Your task to perform on an android device: Go to privacy settings Image 0: 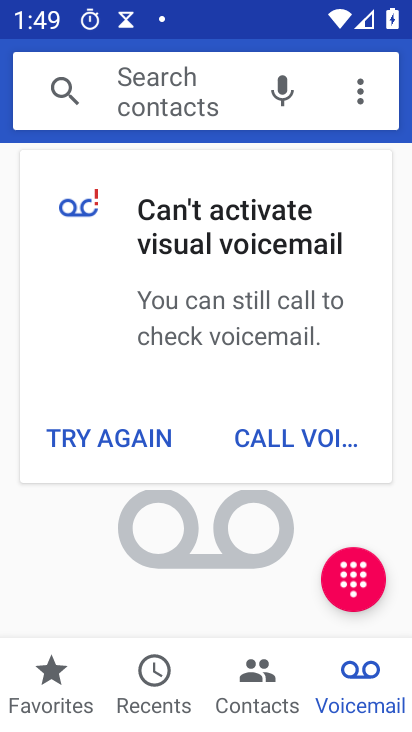
Step 0: press home button
Your task to perform on an android device: Go to privacy settings Image 1: 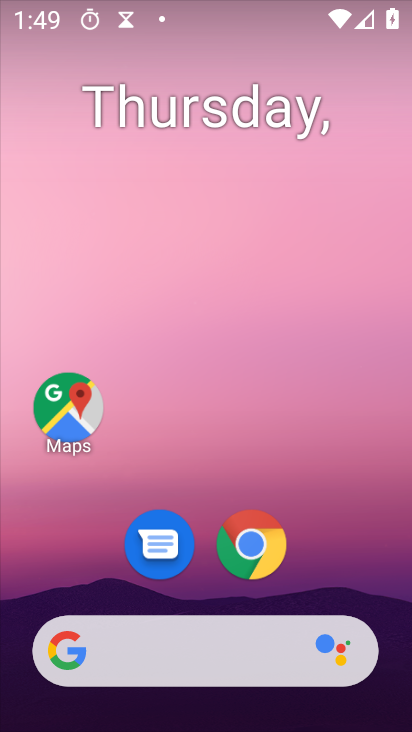
Step 1: drag from (230, 553) to (237, 150)
Your task to perform on an android device: Go to privacy settings Image 2: 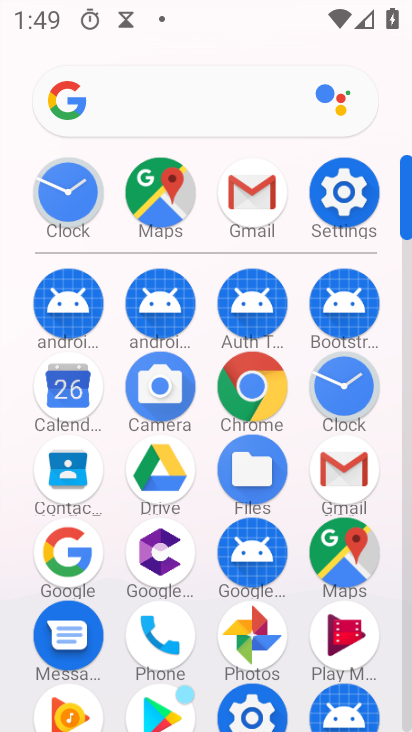
Step 2: click (351, 176)
Your task to perform on an android device: Go to privacy settings Image 3: 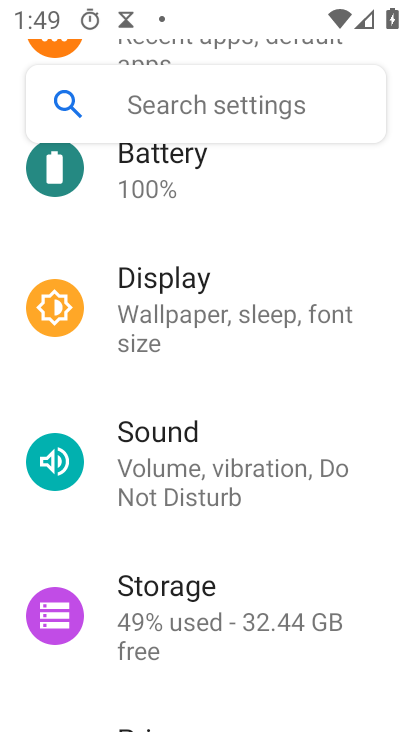
Step 3: drag from (309, 182) to (296, 581)
Your task to perform on an android device: Go to privacy settings Image 4: 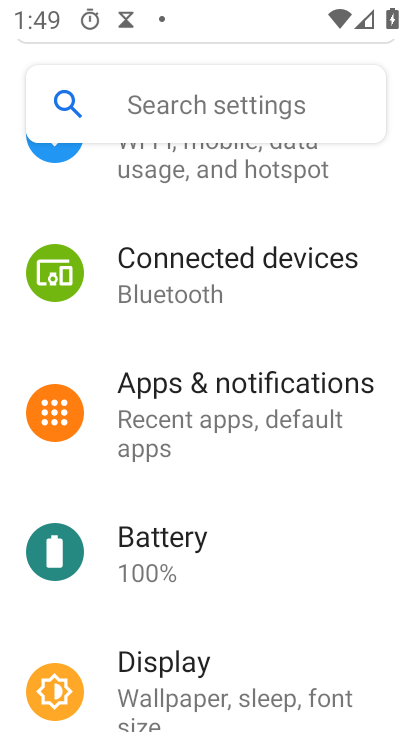
Step 4: drag from (209, 218) to (227, 617)
Your task to perform on an android device: Go to privacy settings Image 5: 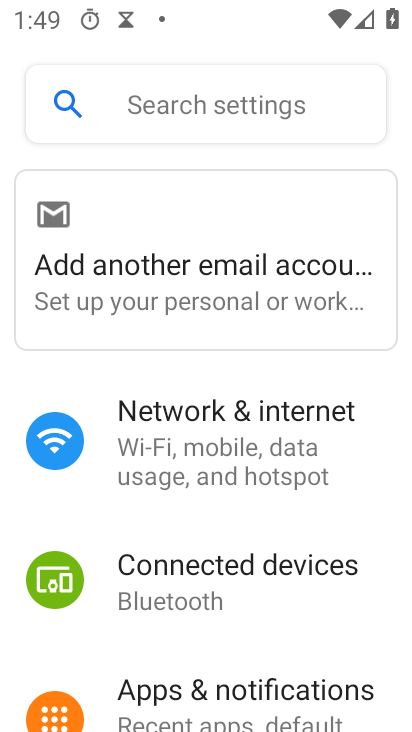
Step 5: drag from (225, 667) to (225, 292)
Your task to perform on an android device: Go to privacy settings Image 6: 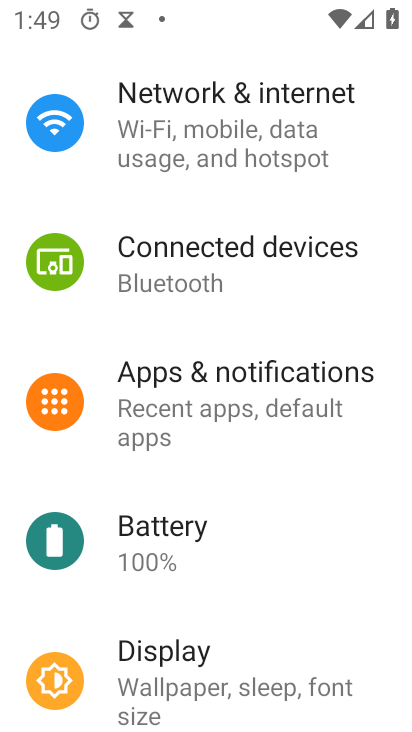
Step 6: drag from (184, 682) to (221, 374)
Your task to perform on an android device: Go to privacy settings Image 7: 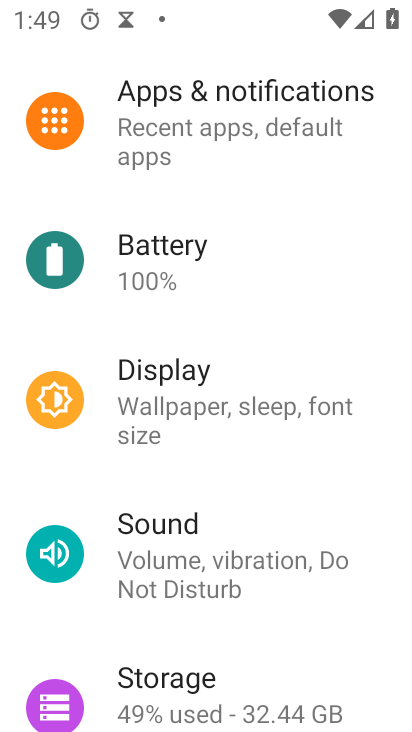
Step 7: drag from (178, 649) to (200, 172)
Your task to perform on an android device: Go to privacy settings Image 8: 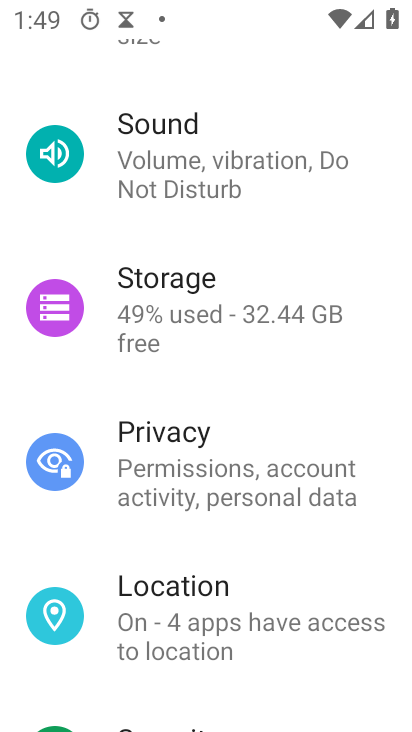
Step 8: click (143, 447)
Your task to perform on an android device: Go to privacy settings Image 9: 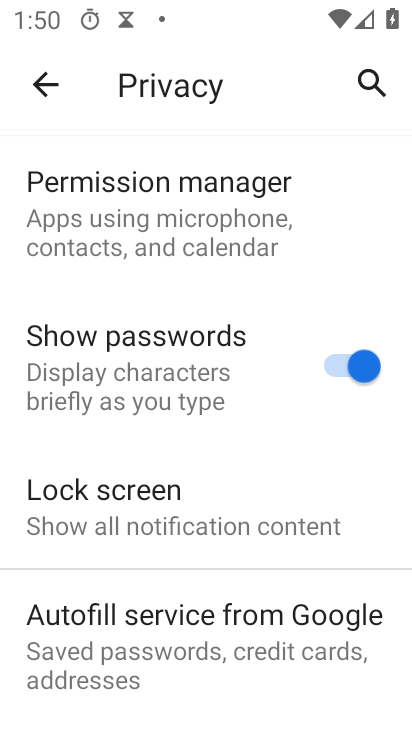
Step 9: task complete